Your task to perform on an android device: find which apps use the phone's location Image 0: 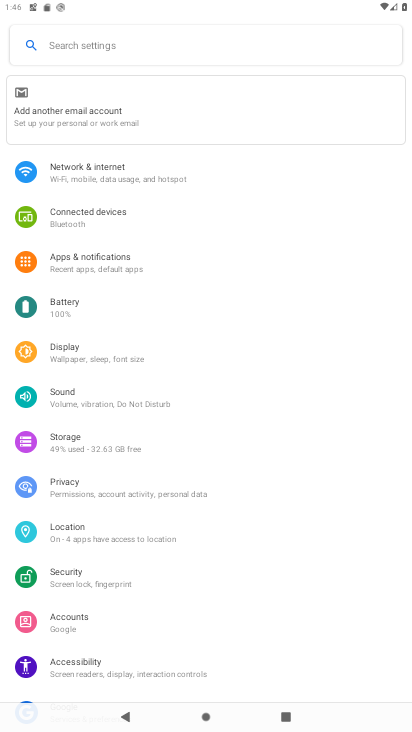
Step 0: click (97, 526)
Your task to perform on an android device: find which apps use the phone's location Image 1: 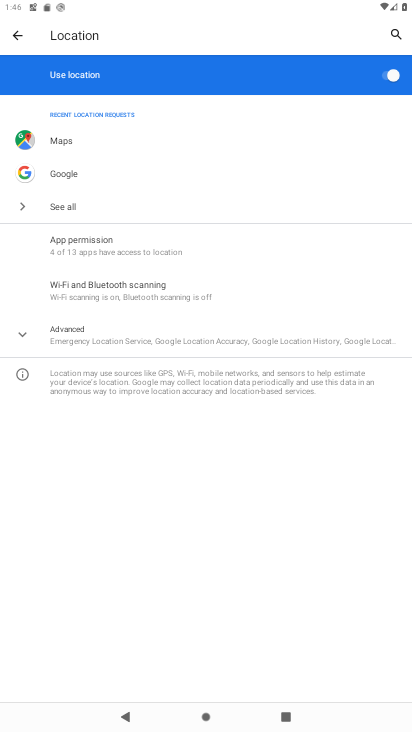
Step 1: click (99, 242)
Your task to perform on an android device: find which apps use the phone's location Image 2: 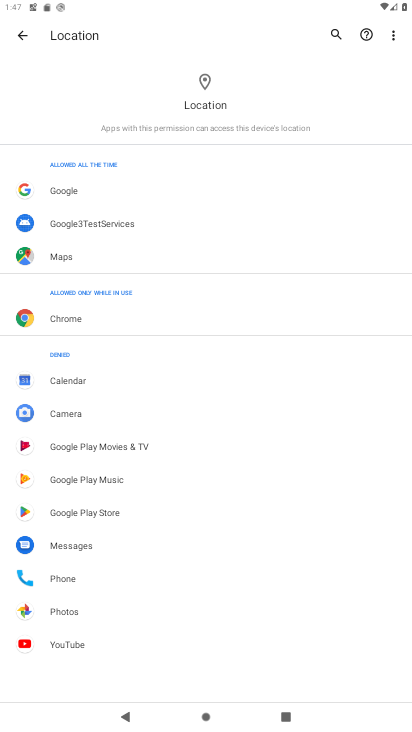
Step 2: task complete